Your task to perform on an android device: Is it going to rain today? Image 0: 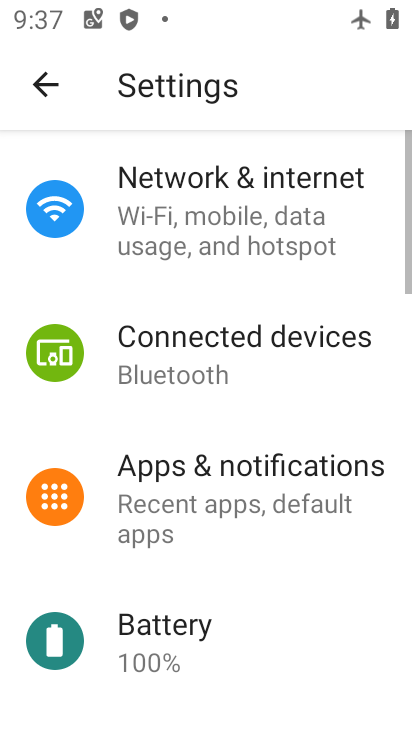
Step 0: press home button
Your task to perform on an android device: Is it going to rain today? Image 1: 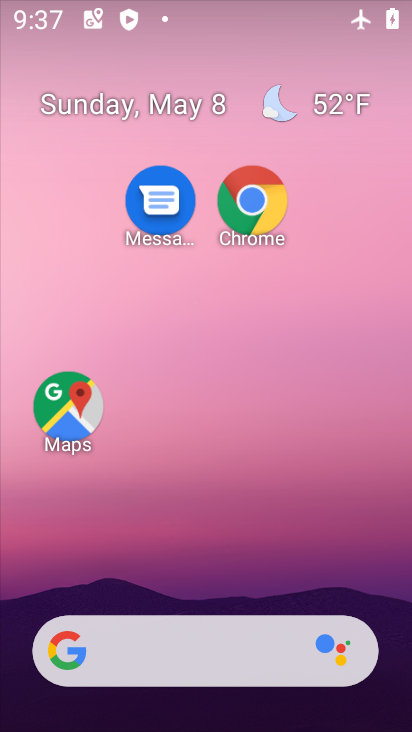
Step 1: drag from (200, 606) to (181, 22)
Your task to perform on an android device: Is it going to rain today? Image 2: 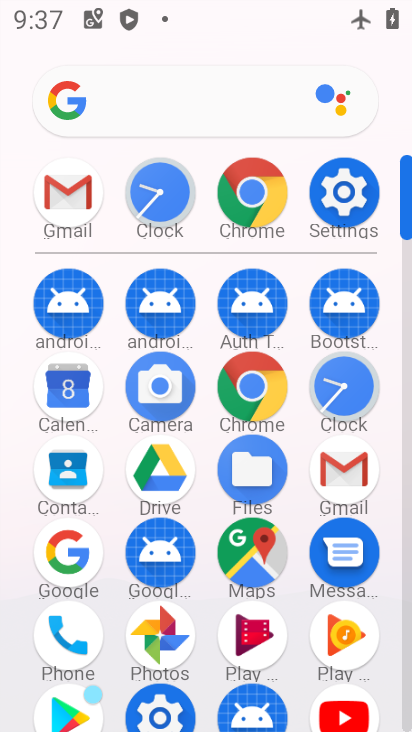
Step 2: drag from (120, 611) to (93, 98)
Your task to perform on an android device: Is it going to rain today? Image 3: 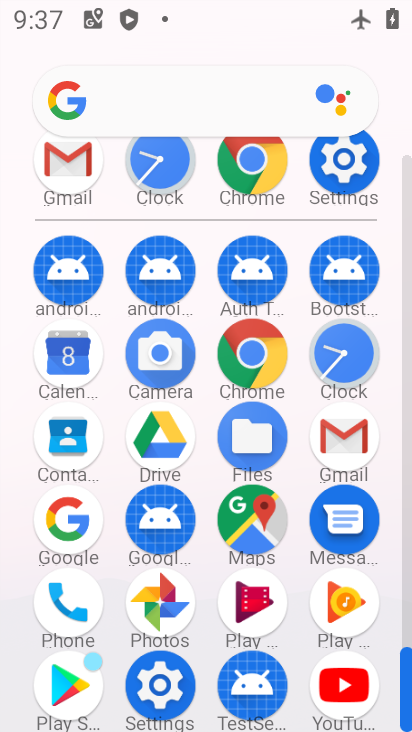
Step 3: click (48, 508)
Your task to perform on an android device: Is it going to rain today? Image 4: 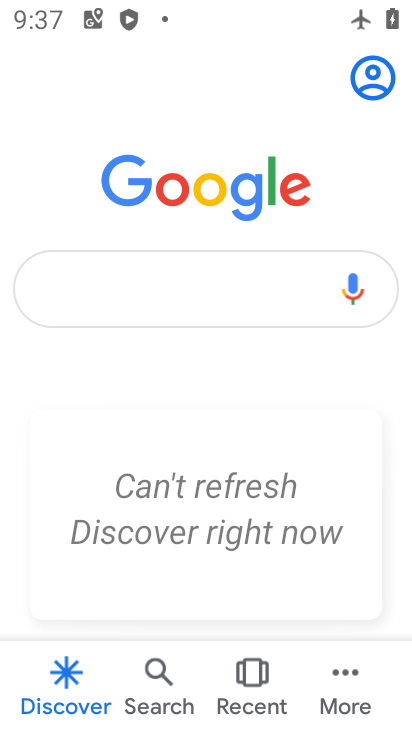
Step 4: click (225, 305)
Your task to perform on an android device: Is it going to rain today? Image 5: 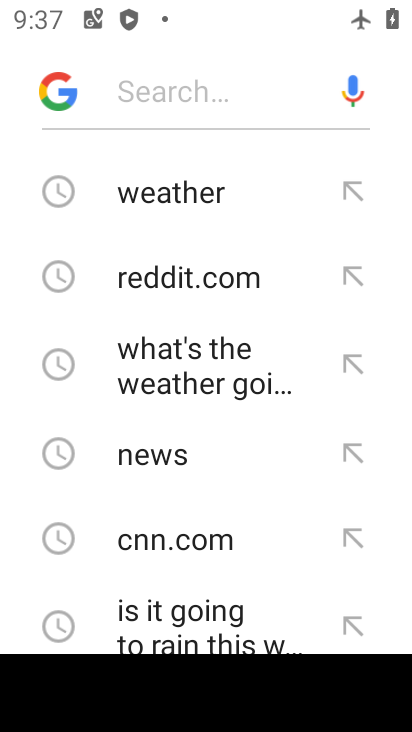
Step 5: click (182, 207)
Your task to perform on an android device: Is it going to rain today? Image 6: 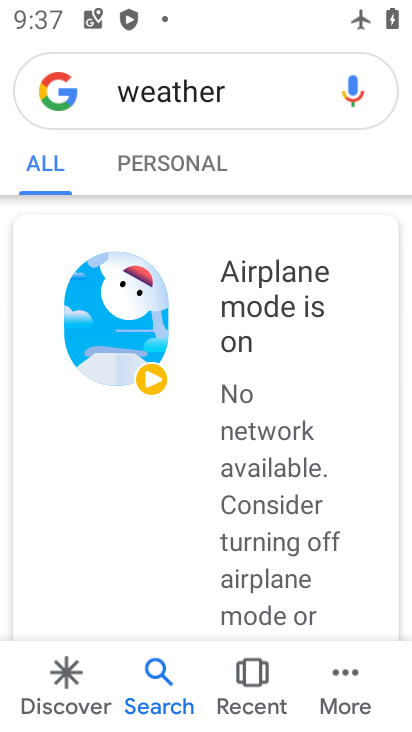
Step 6: task complete